Your task to perform on an android device: Find coffee shops on Maps Image 0: 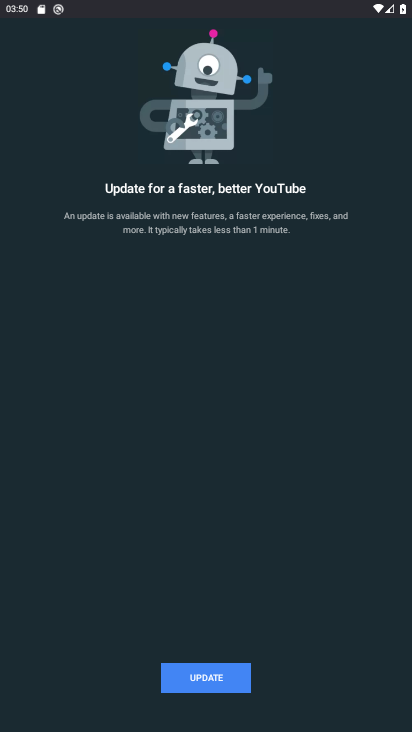
Step 0: press home button
Your task to perform on an android device: Find coffee shops on Maps Image 1: 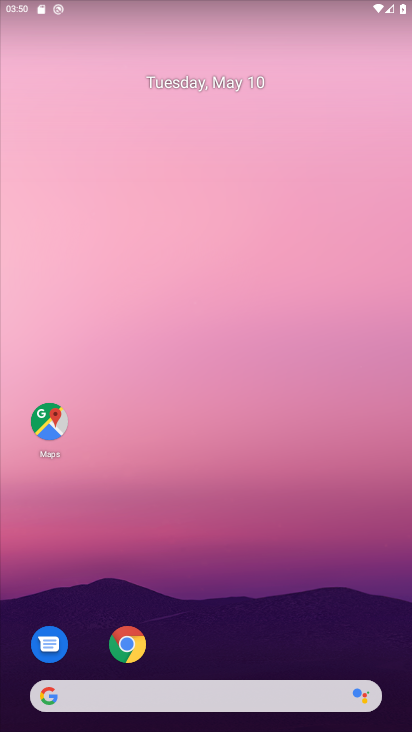
Step 1: click (47, 415)
Your task to perform on an android device: Find coffee shops on Maps Image 2: 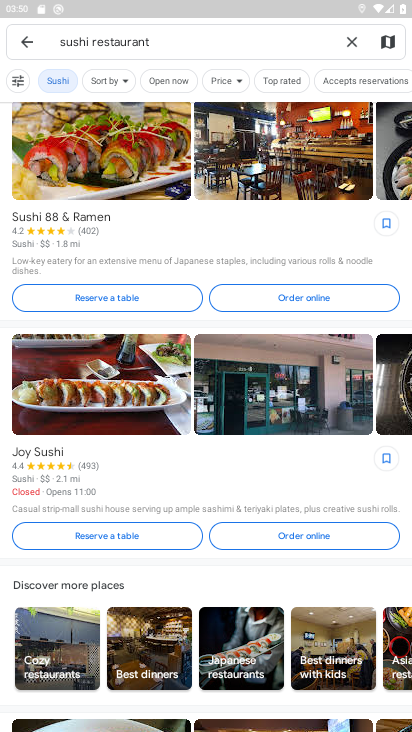
Step 2: click (349, 41)
Your task to perform on an android device: Find coffee shops on Maps Image 3: 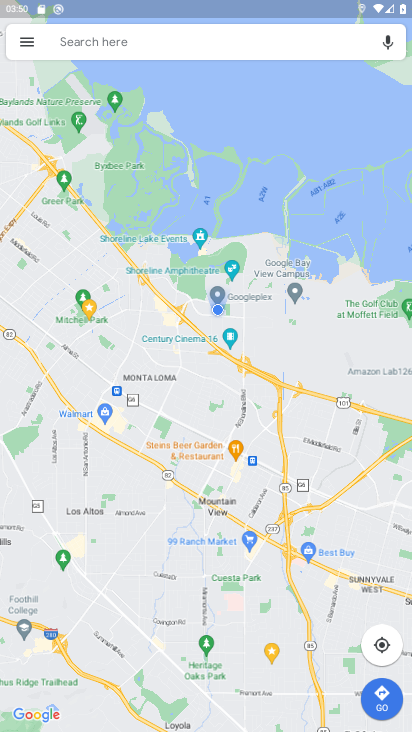
Step 3: type "coffee"
Your task to perform on an android device: Find coffee shops on Maps Image 4: 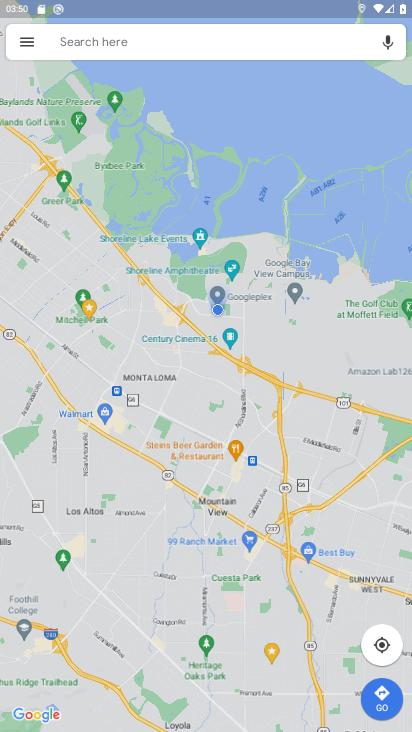
Step 4: click (102, 34)
Your task to perform on an android device: Find coffee shops on Maps Image 5: 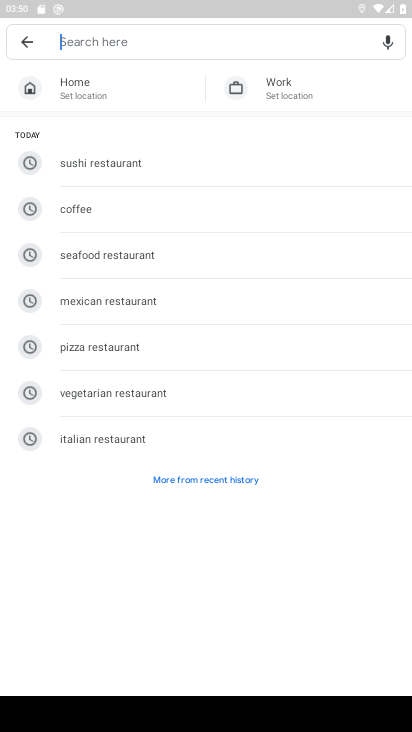
Step 5: click (101, 212)
Your task to perform on an android device: Find coffee shops on Maps Image 6: 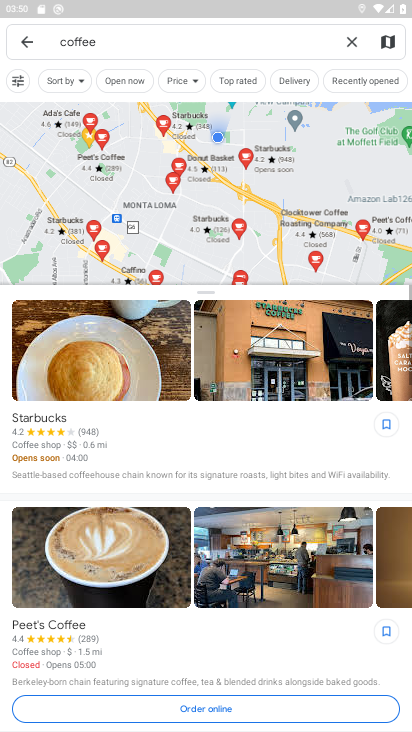
Step 6: task complete